Your task to perform on an android device: toggle airplane mode Image 0: 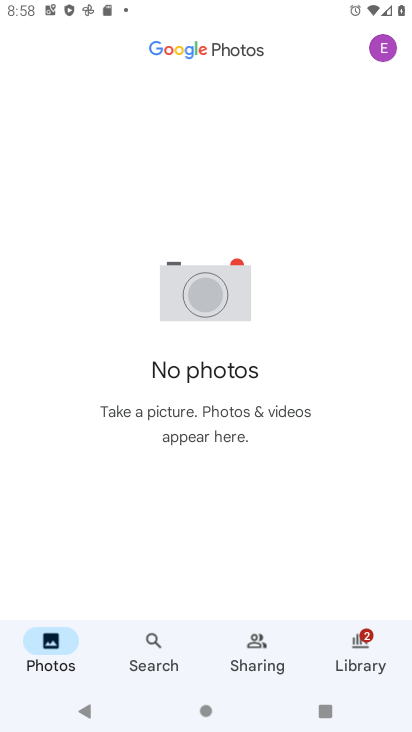
Step 0: press home button
Your task to perform on an android device: toggle airplane mode Image 1: 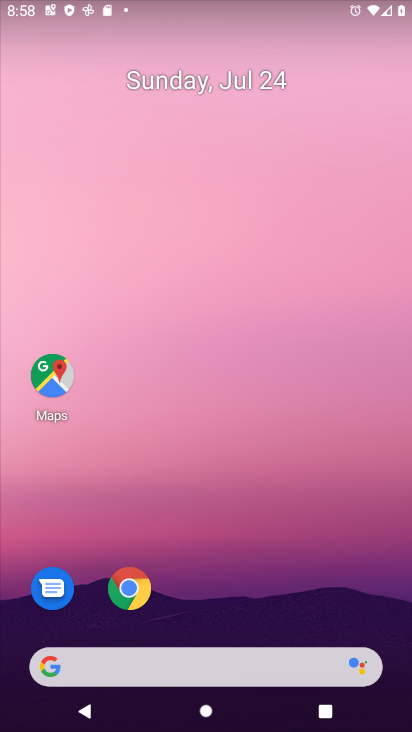
Step 1: drag from (266, 580) to (292, 0)
Your task to perform on an android device: toggle airplane mode Image 2: 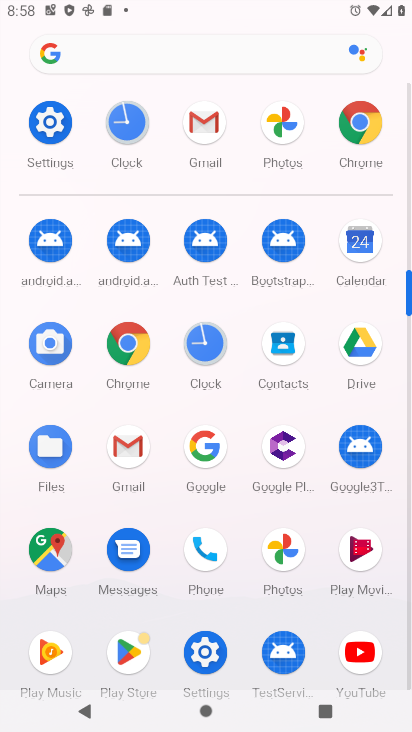
Step 2: click (58, 132)
Your task to perform on an android device: toggle airplane mode Image 3: 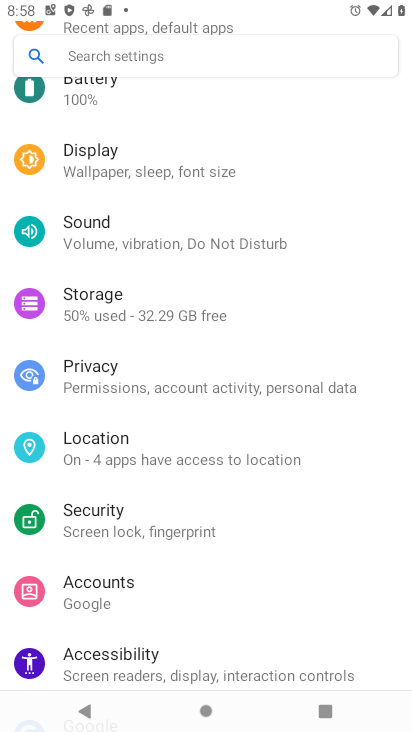
Step 3: drag from (241, 175) to (304, 568)
Your task to perform on an android device: toggle airplane mode Image 4: 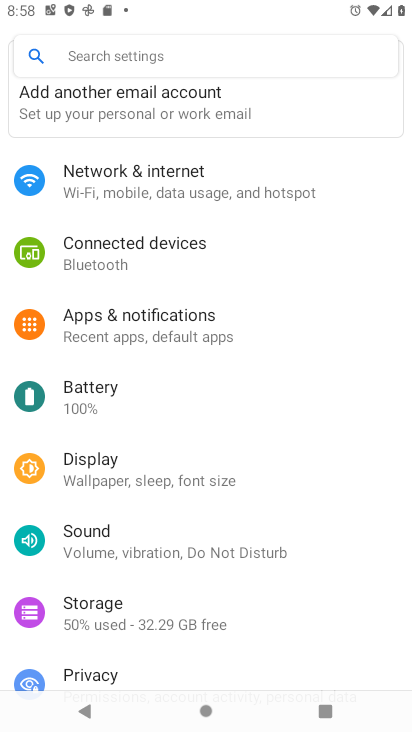
Step 4: click (142, 166)
Your task to perform on an android device: toggle airplane mode Image 5: 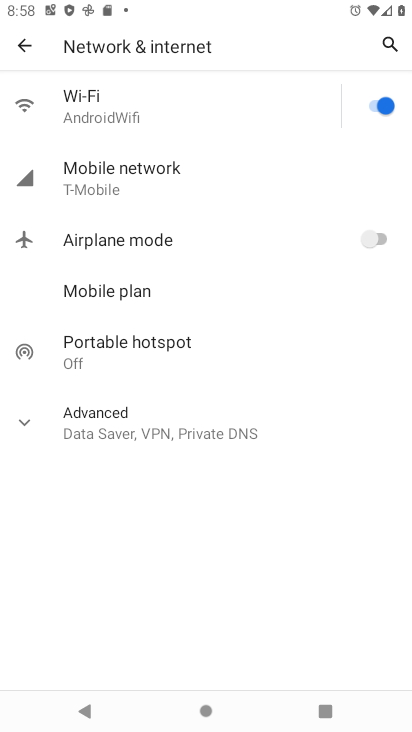
Step 5: click (383, 241)
Your task to perform on an android device: toggle airplane mode Image 6: 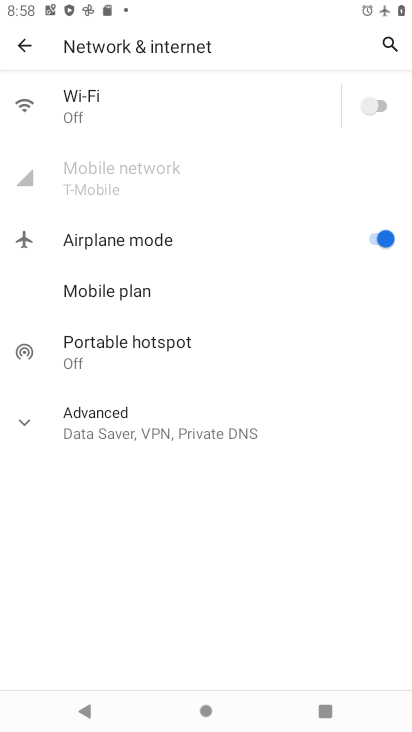
Step 6: task complete